Your task to perform on an android device: turn off notifications in google photos Image 0: 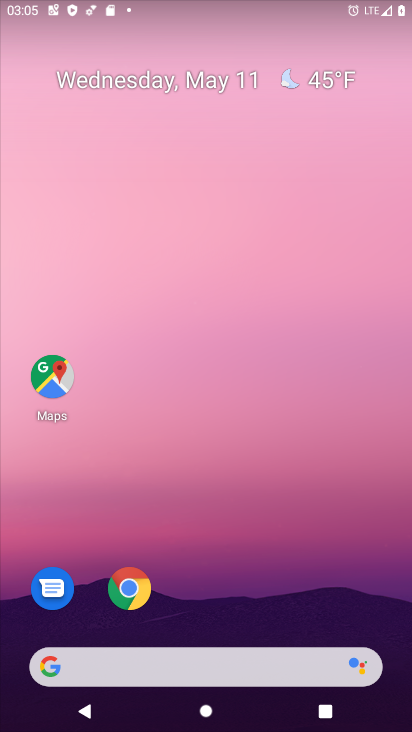
Step 0: drag from (213, 533) to (213, 225)
Your task to perform on an android device: turn off notifications in google photos Image 1: 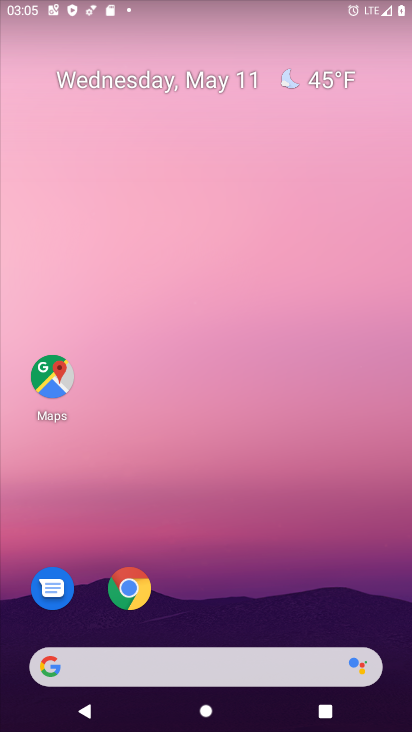
Step 1: drag from (209, 623) to (213, 135)
Your task to perform on an android device: turn off notifications in google photos Image 2: 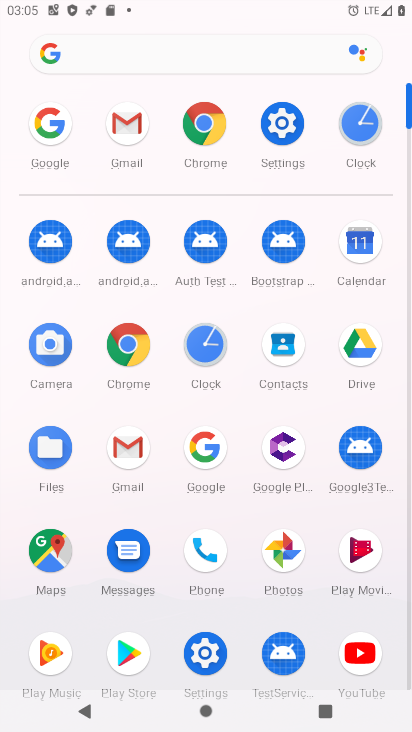
Step 2: click (267, 545)
Your task to perform on an android device: turn off notifications in google photos Image 3: 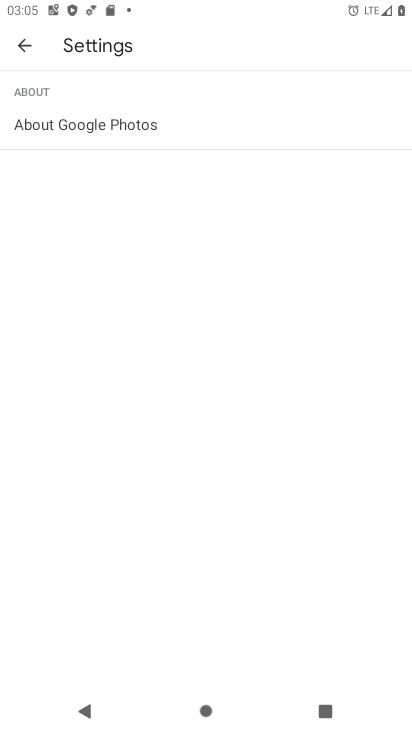
Step 3: click (29, 44)
Your task to perform on an android device: turn off notifications in google photos Image 4: 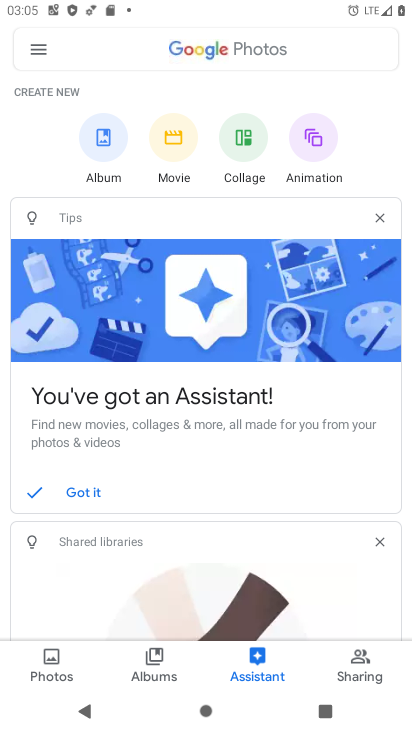
Step 4: click (29, 44)
Your task to perform on an android device: turn off notifications in google photos Image 5: 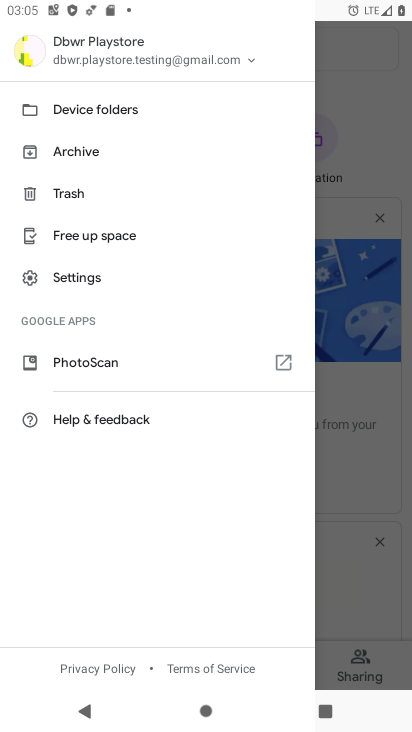
Step 5: click (67, 277)
Your task to perform on an android device: turn off notifications in google photos Image 6: 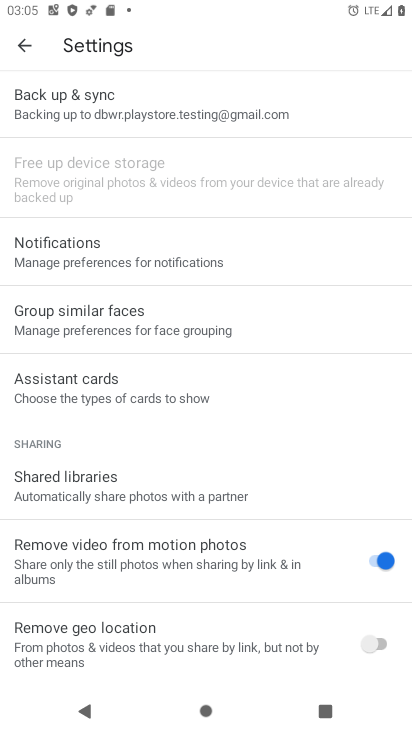
Step 6: click (100, 262)
Your task to perform on an android device: turn off notifications in google photos Image 7: 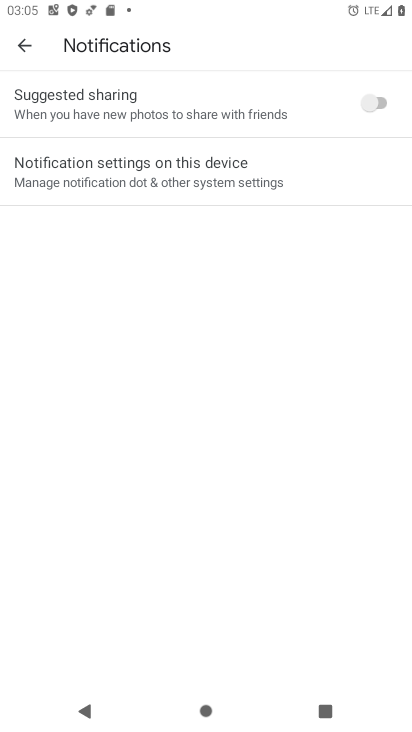
Step 7: click (110, 170)
Your task to perform on an android device: turn off notifications in google photos Image 8: 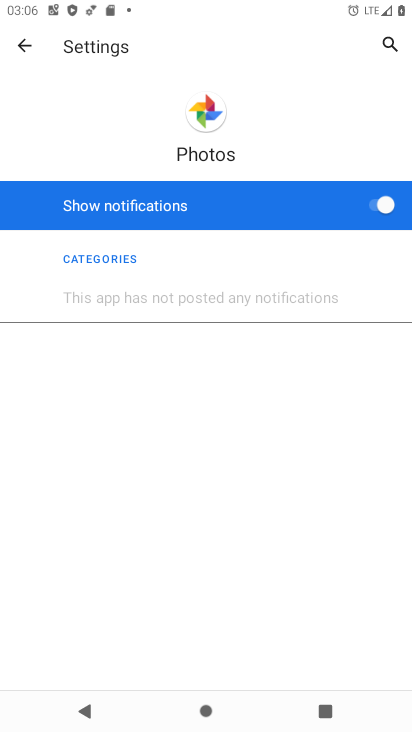
Step 8: click (382, 212)
Your task to perform on an android device: turn off notifications in google photos Image 9: 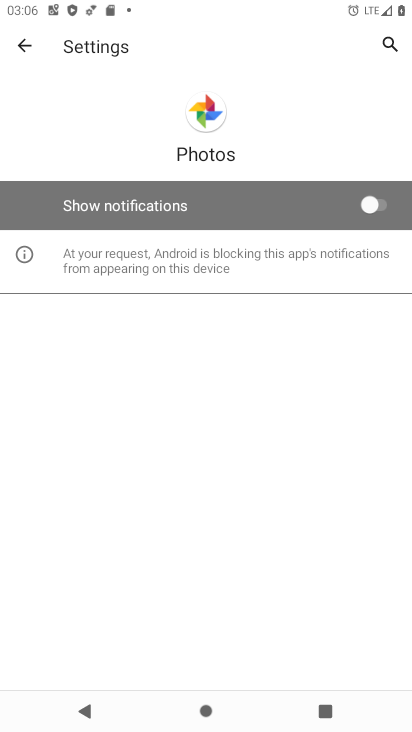
Step 9: task complete